Your task to perform on an android device: Go to settings Image 0: 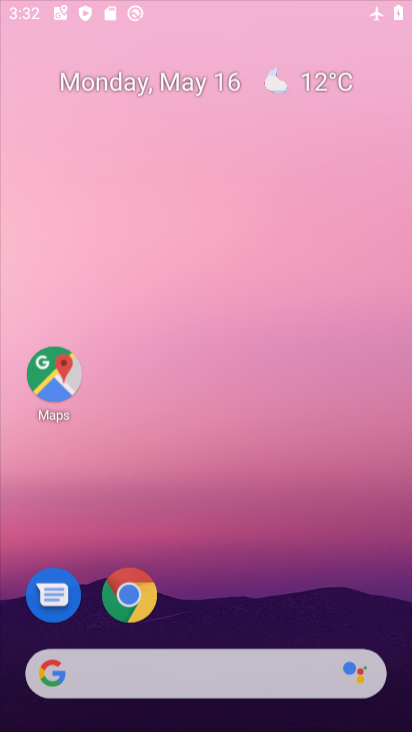
Step 0: drag from (202, 634) to (111, 15)
Your task to perform on an android device: Go to settings Image 1: 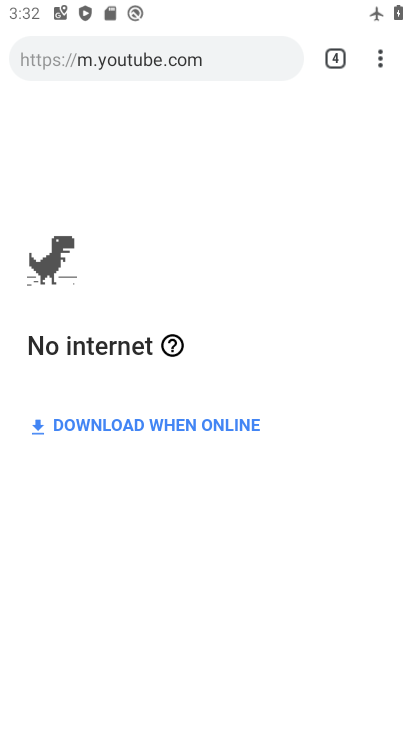
Step 1: press home button
Your task to perform on an android device: Go to settings Image 2: 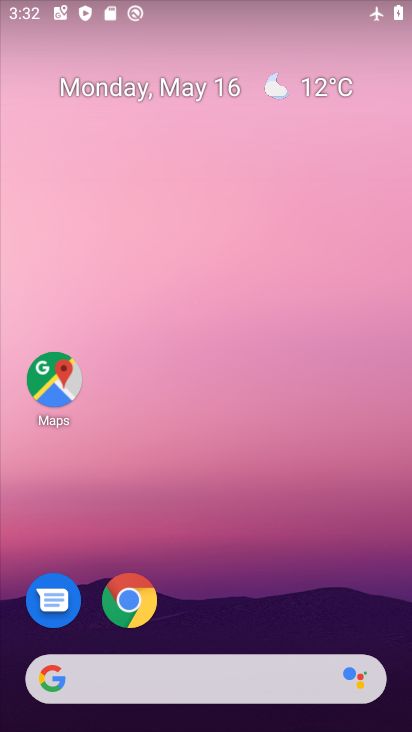
Step 2: drag from (214, 634) to (199, 6)
Your task to perform on an android device: Go to settings Image 3: 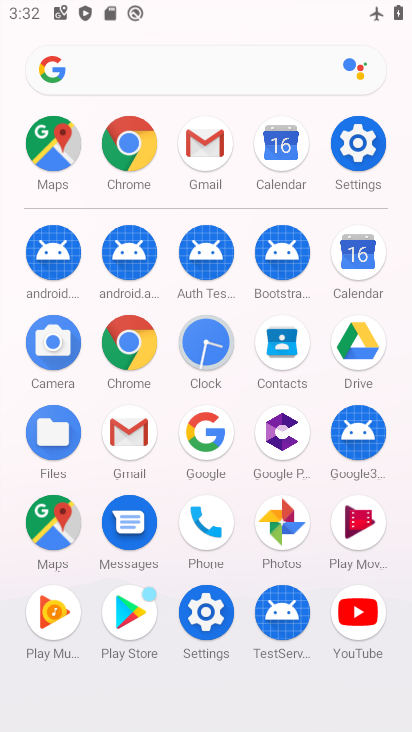
Step 3: click (372, 141)
Your task to perform on an android device: Go to settings Image 4: 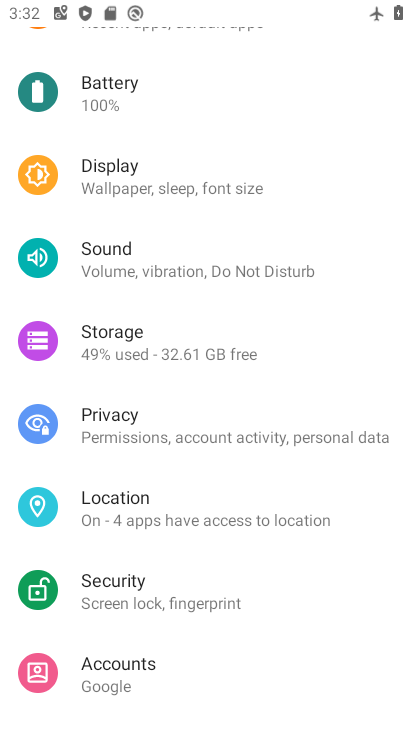
Step 4: task complete